Your task to perform on an android device: Toggle the flashlight Image 0: 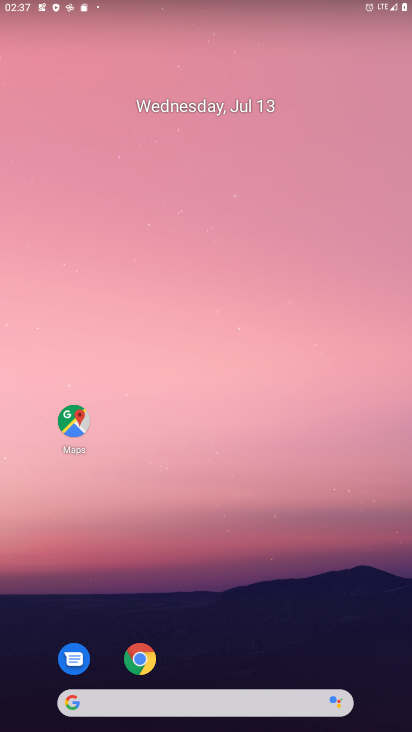
Step 0: drag from (209, 727) to (214, 221)
Your task to perform on an android device: Toggle the flashlight Image 1: 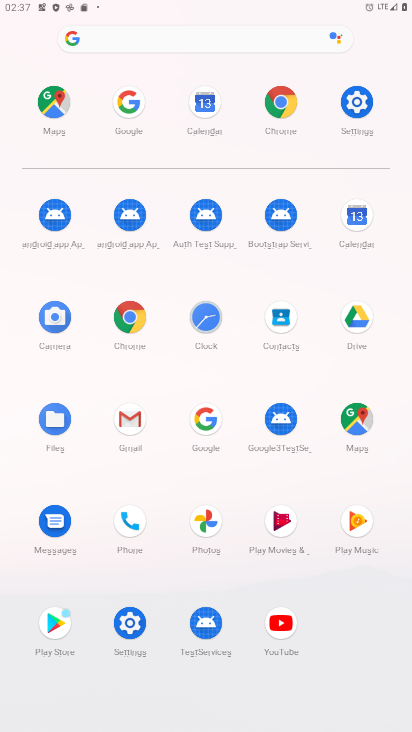
Step 1: click (356, 103)
Your task to perform on an android device: Toggle the flashlight Image 2: 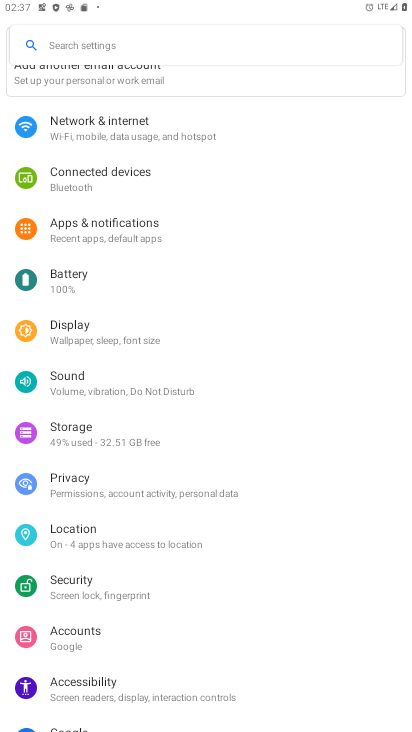
Step 2: task complete